Your task to perform on an android device: Go to Reddit.com Image 0: 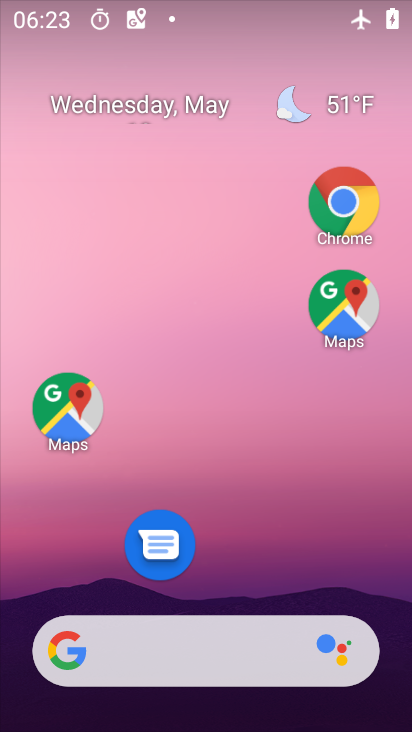
Step 0: click (335, 239)
Your task to perform on an android device: Go to Reddit.com Image 1: 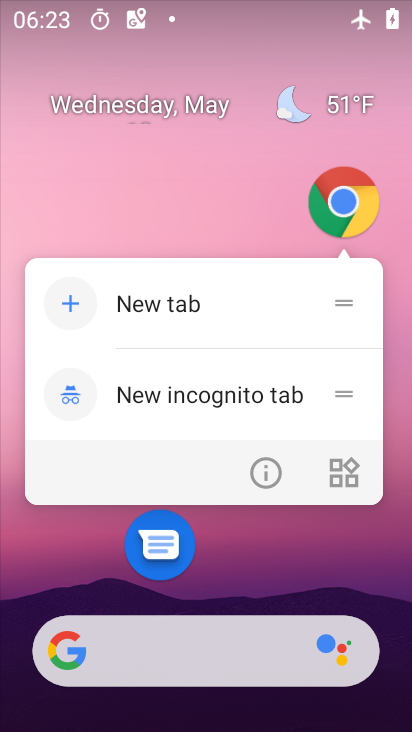
Step 1: click (350, 201)
Your task to perform on an android device: Go to Reddit.com Image 2: 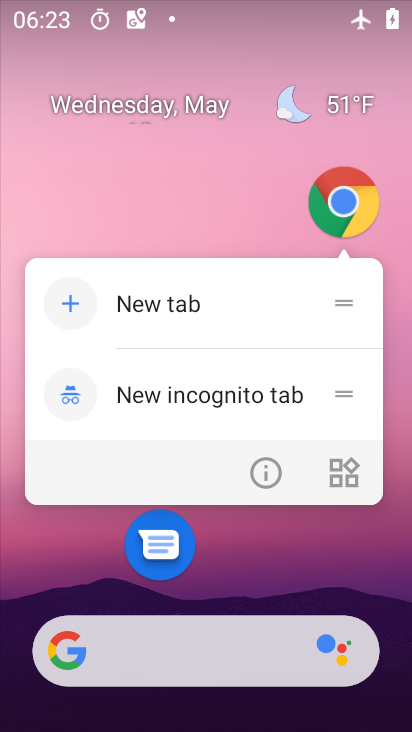
Step 2: click (352, 221)
Your task to perform on an android device: Go to Reddit.com Image 3: 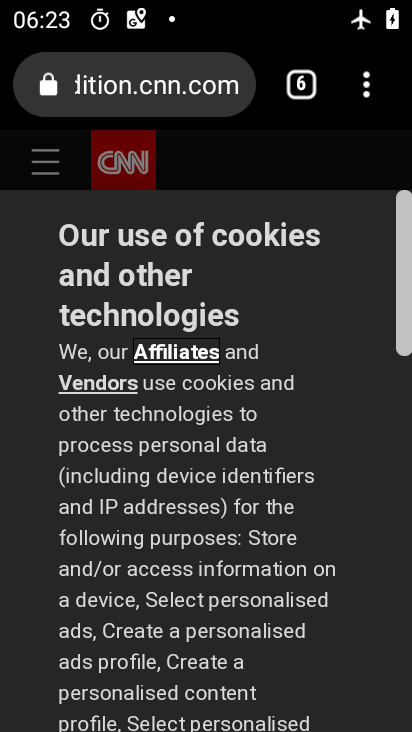
Step 3: press back button
Your task to perform on an android device: Go to Reddit.com Image 4: 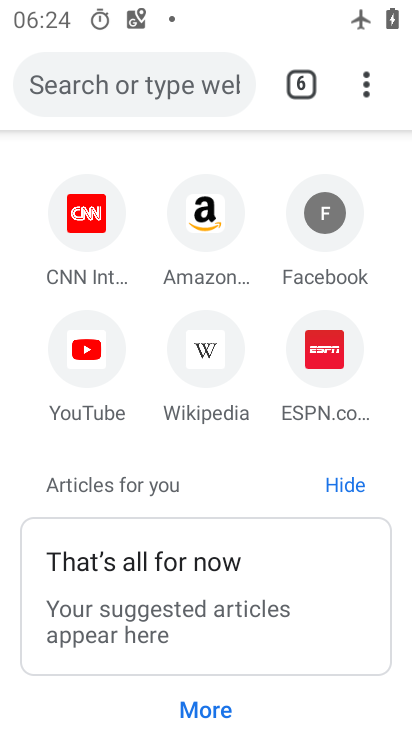
Step 4: click (204, 97)
Your task to perform on an android device: Go to Reddit.com Image 5: 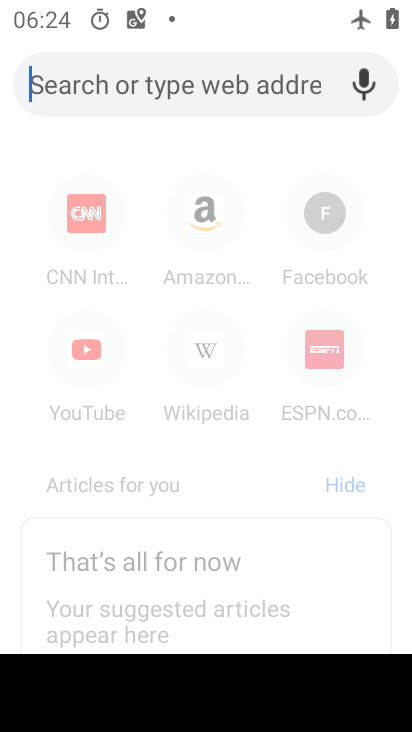
Step 5: type "www.reddit.com"
Your task to perform on an android device: Go to Reddit.com Image 6: 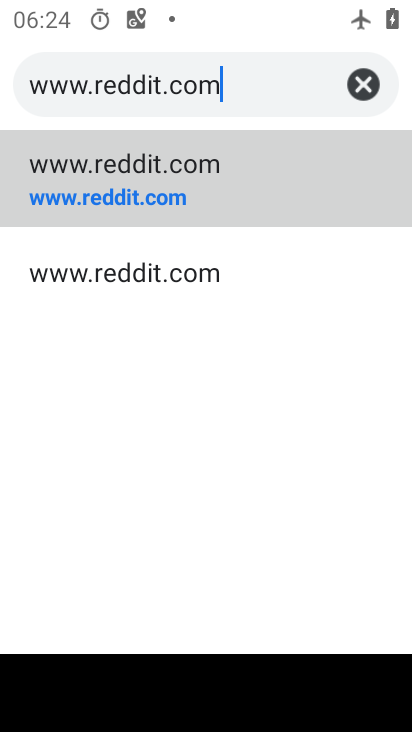
Step 6: click (176, 210)
Your task to perform on an android device: Go to Reddit.com Image 7: 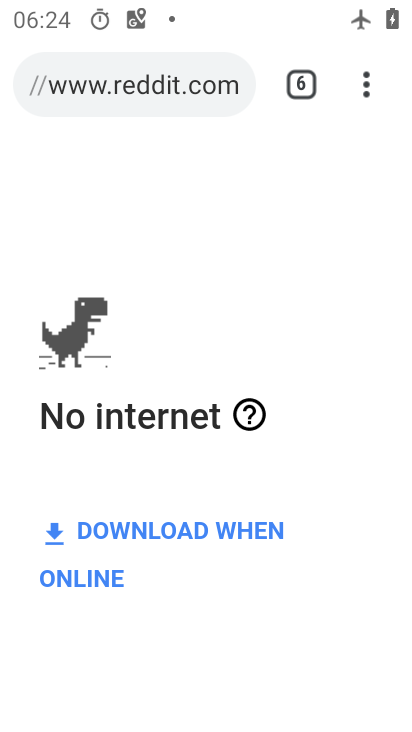
Step 7: task complete